Your task to perform on an android device: Is it going to rain this weekend? Image 0: 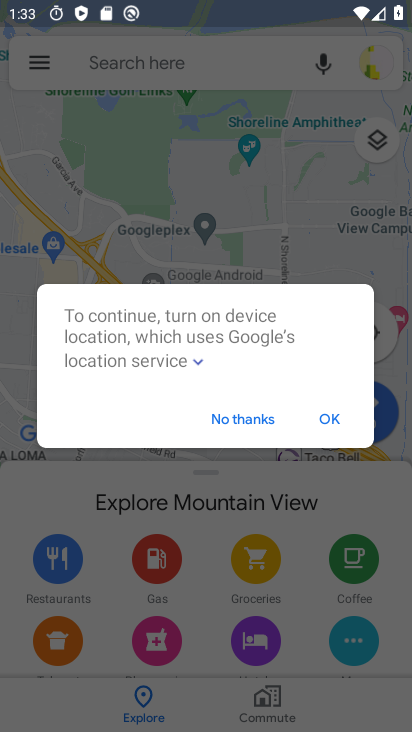
Step 0: press home button
Your task to perform on an android device: Is it going to rain this weekend? Image 1: 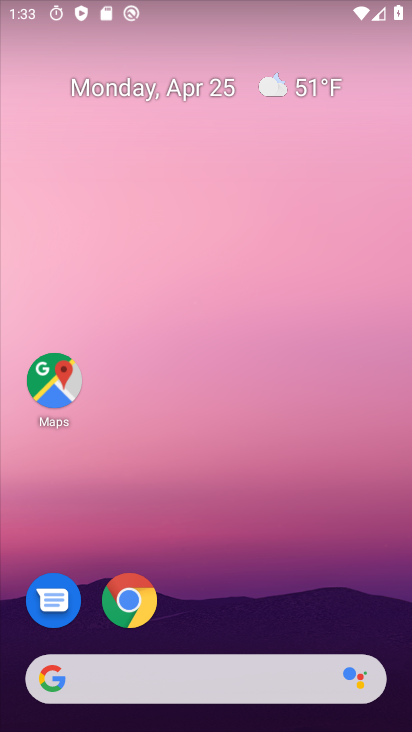
Step 1: click (318, 82)
Your task to perform on an android device: Is it going to rain this weekend? Image 2: 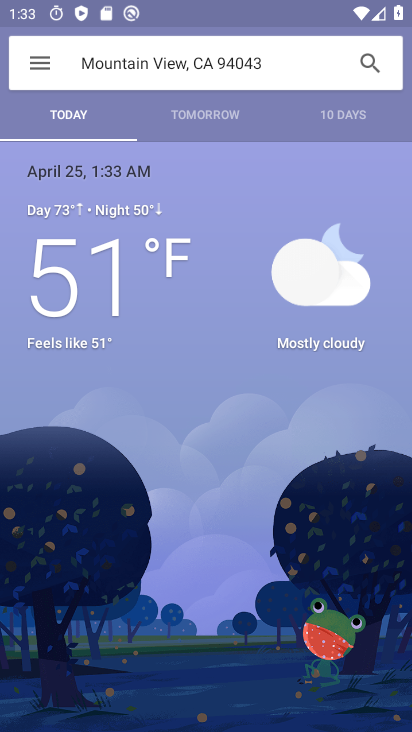
Step 2: task complete